Your task to perform on an android device: set default search engine in the chrome app Image 0: 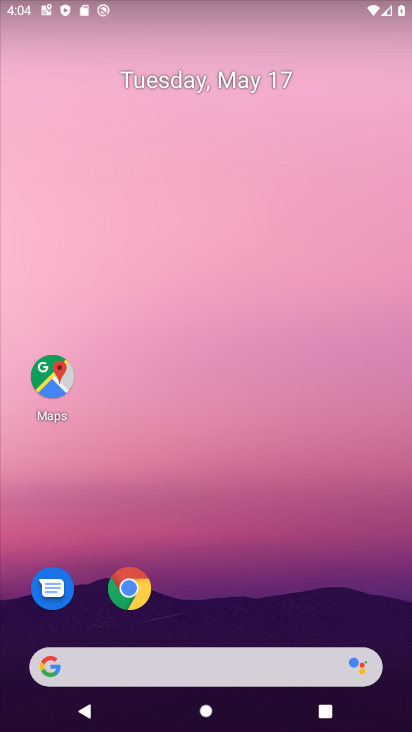
Step 0: click (129, 588)
Your task to perform on an android device: set default search engine in the chrome app Image 1: 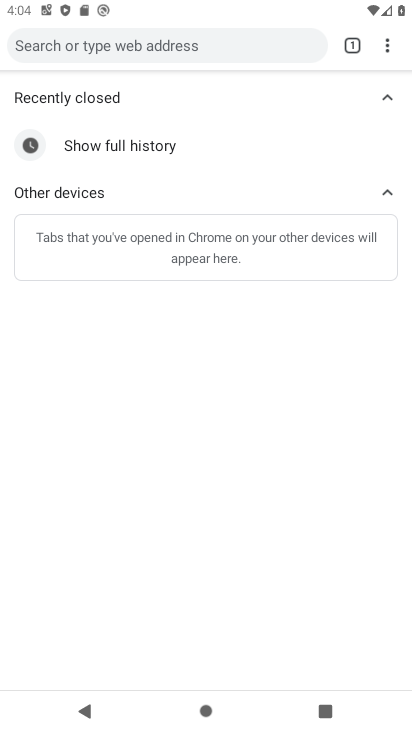
Step 1: click (388, 44)
Your task to perform on an android device: set default search engine in the chrome app Image 2: 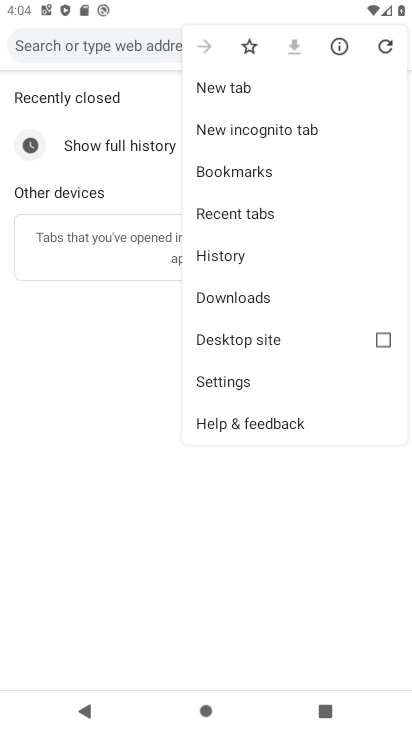
Step 2: click (223, 379)
Your task to perform on an android device: set default search engine in the chrome app Image 3: 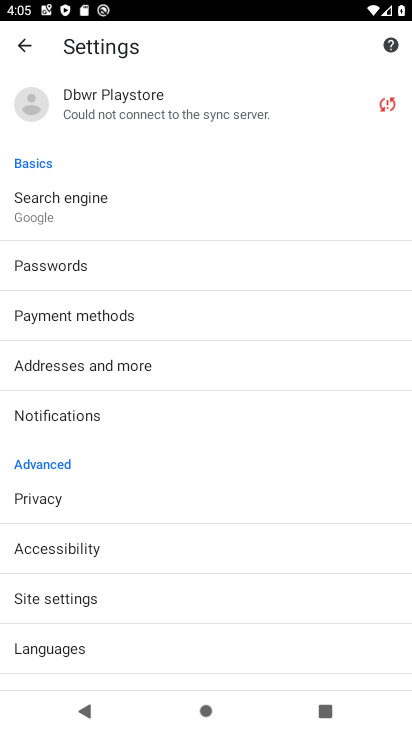
Step 3: click (93, 197)
Your task to perform on an android device: set default search engine in the chrome app Image 4: 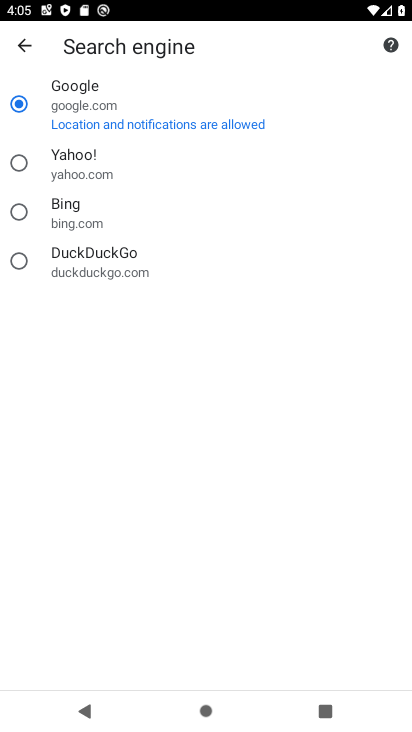
Step 4: click (14, 161)
Your task to perform on an android device: set default search engine in the chrome app Image 5: 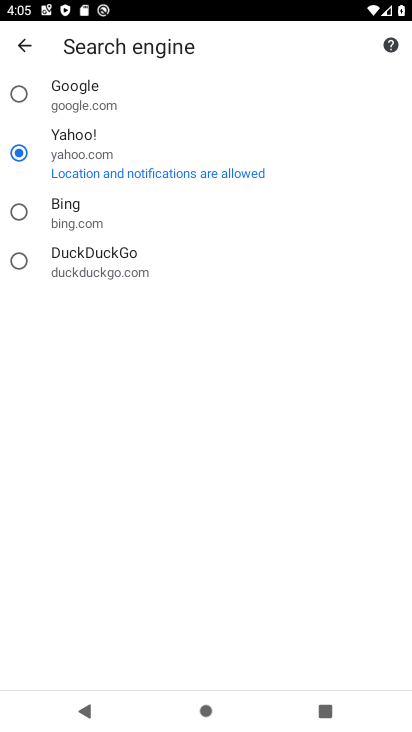
Step 5: task complete